Your task to perform on an android device: search for starred emails in the gmail app Image 0: 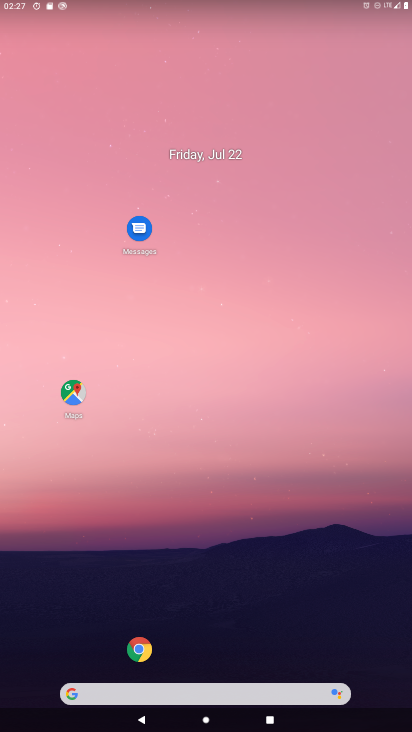
Step 0: drag from (26, 684) to (289, 180)
Your task to perform on an android device: search for starred emails in the gmail app Image 1: 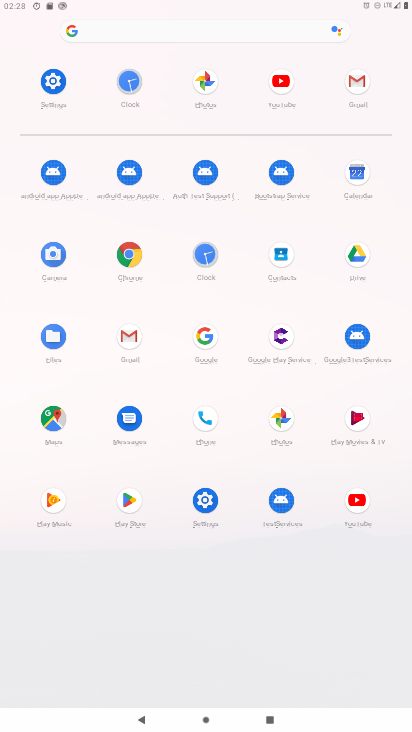
Step 1: click (122, 344)
Your task to perform on an android device: search for starred emails in the gmail app Image 2: 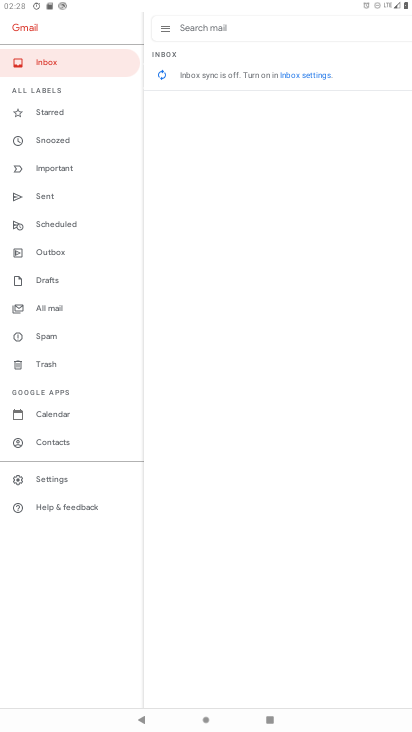
Step 2: click (52, 111)
Your task to perform on an android device: search for starred emails in the gmail app Image 3: 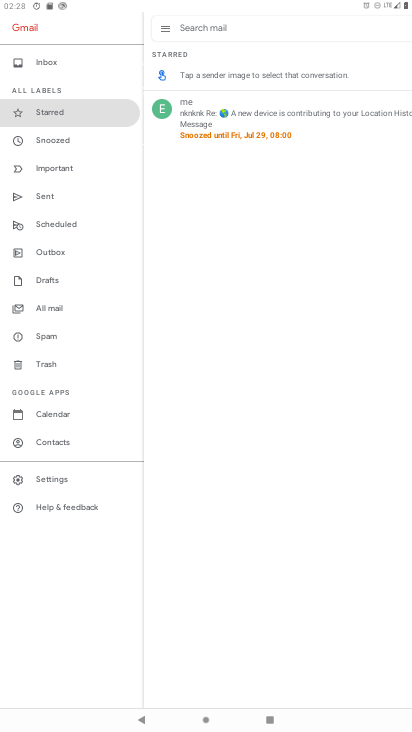
Step 3: task complete